Your task to perform on an android device: Open accessibility settings Image 0: 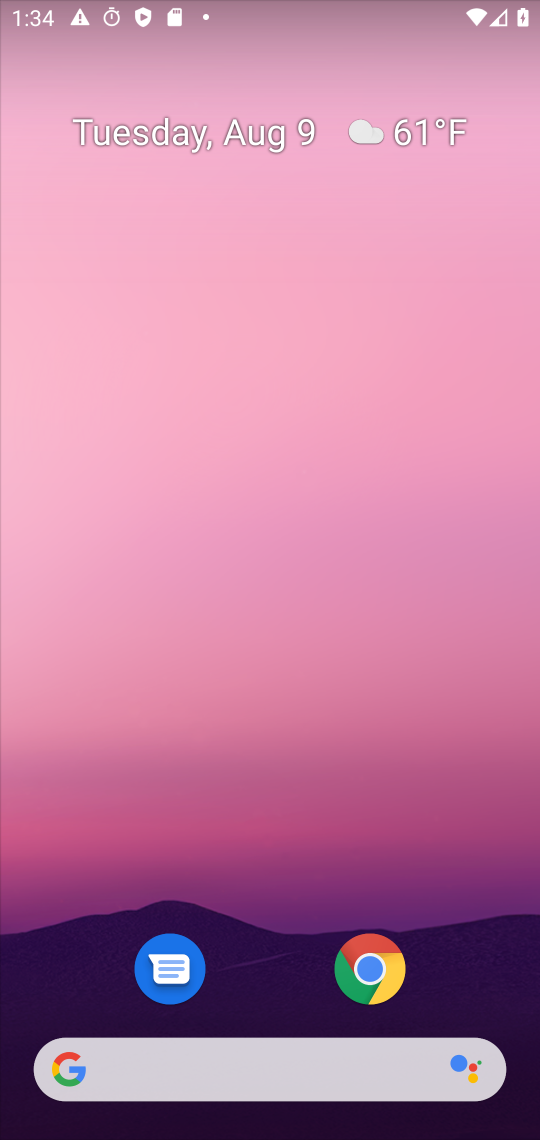
Step 0: press home button
Your task to perform on an android device: Open accessibility settings Image 1: 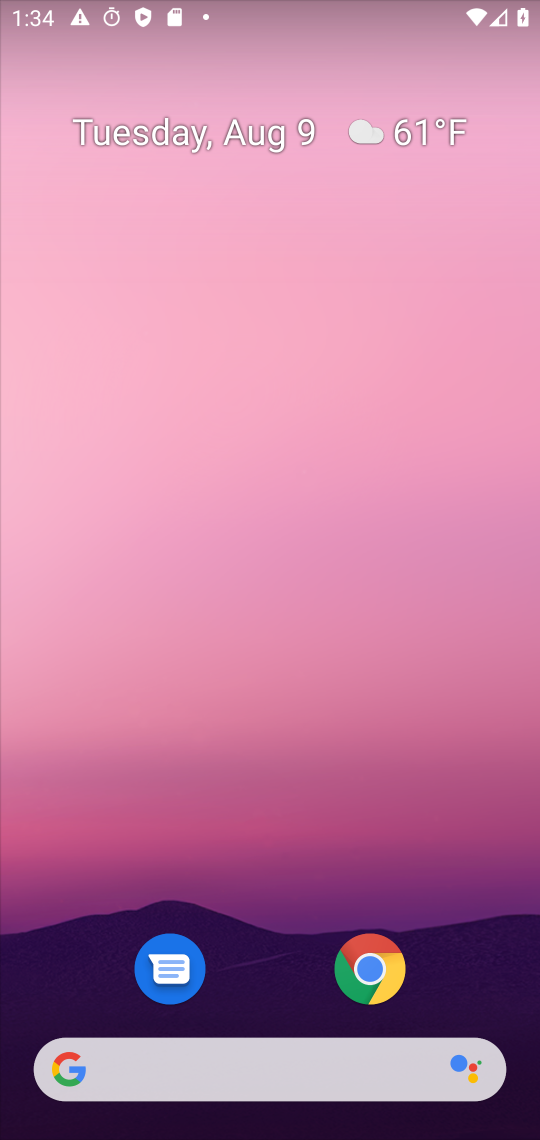
Step 1: drag from (391, 1096) to (287, 424)
Your task to perform on an android device: Open accessibility settings Image 2: 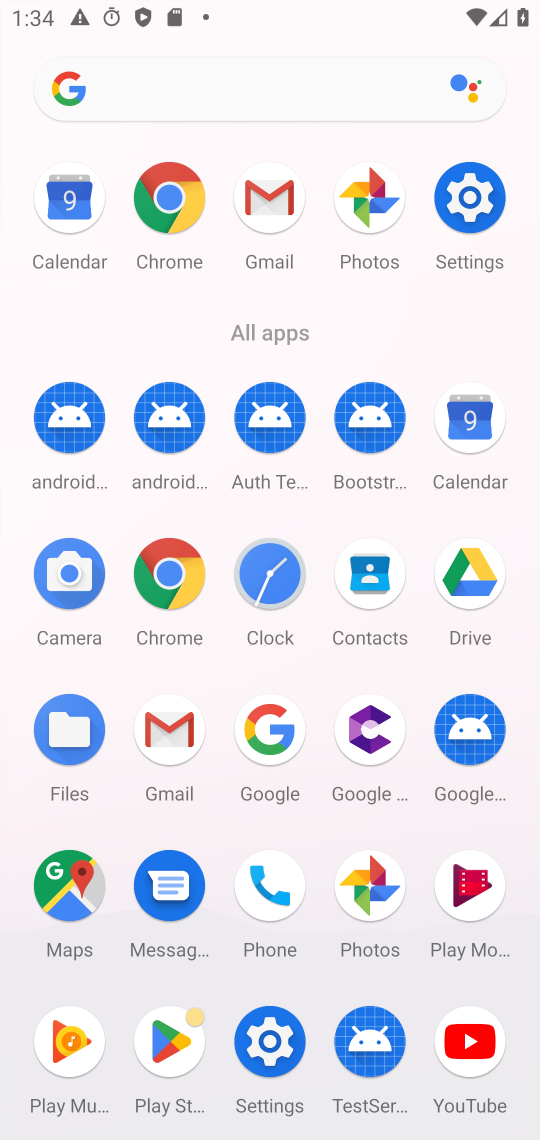
Step 2: click (458, 215)
Your task to perform on an android device: Open accessibility settings Image 3: 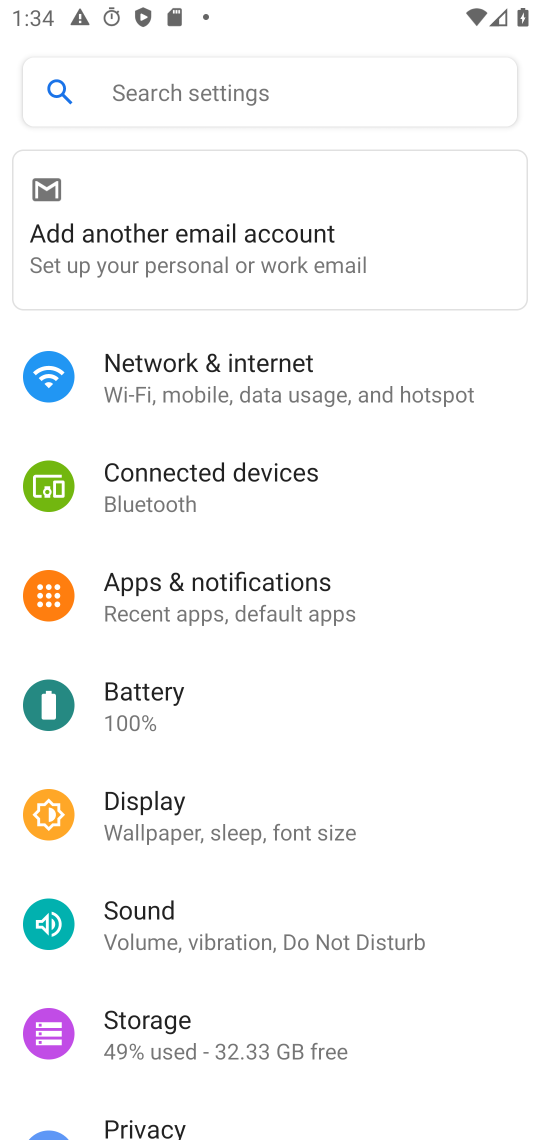
Step 3: click (172, 104)
Your task to perform on an android device: Open accessibility settings Image 4: 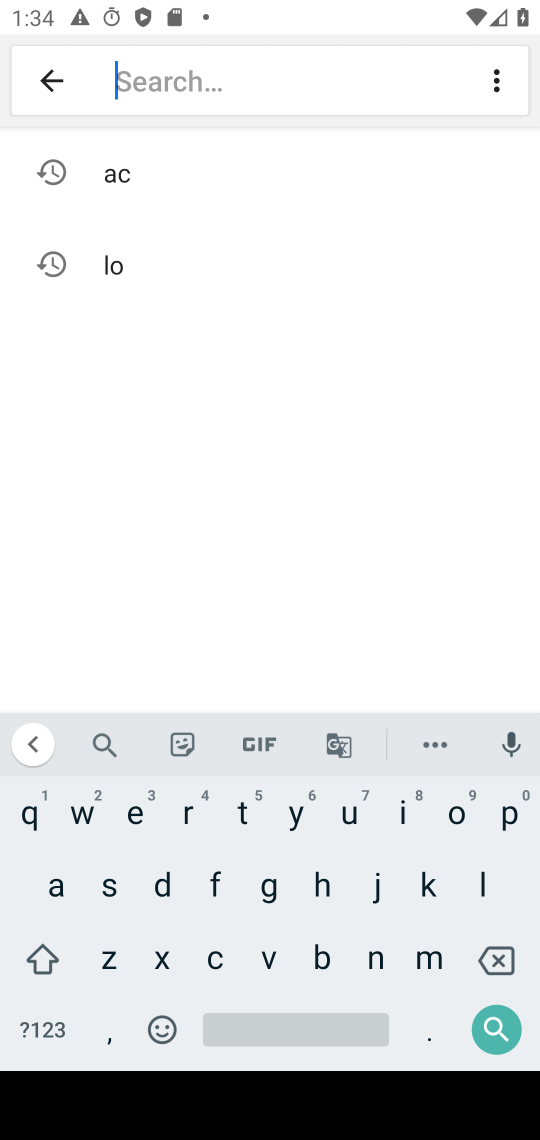
Step 4: click (149, 182)
Your task to perform on an android device: Open accessibility settings Image 5: 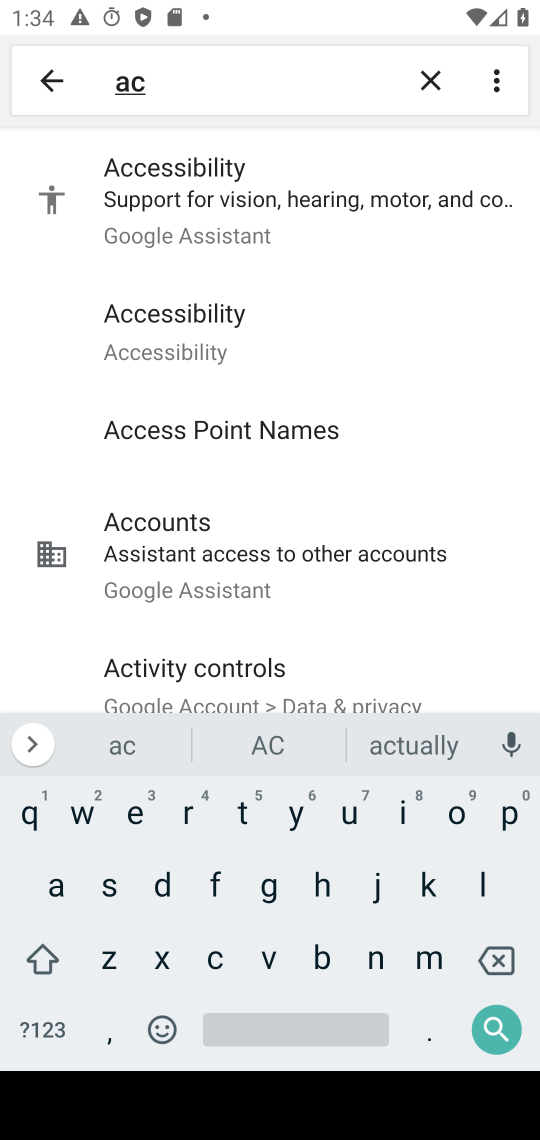
Step 5: click (175, 186)
Your task to perform on an android device: Open accessibility settings Image 6: 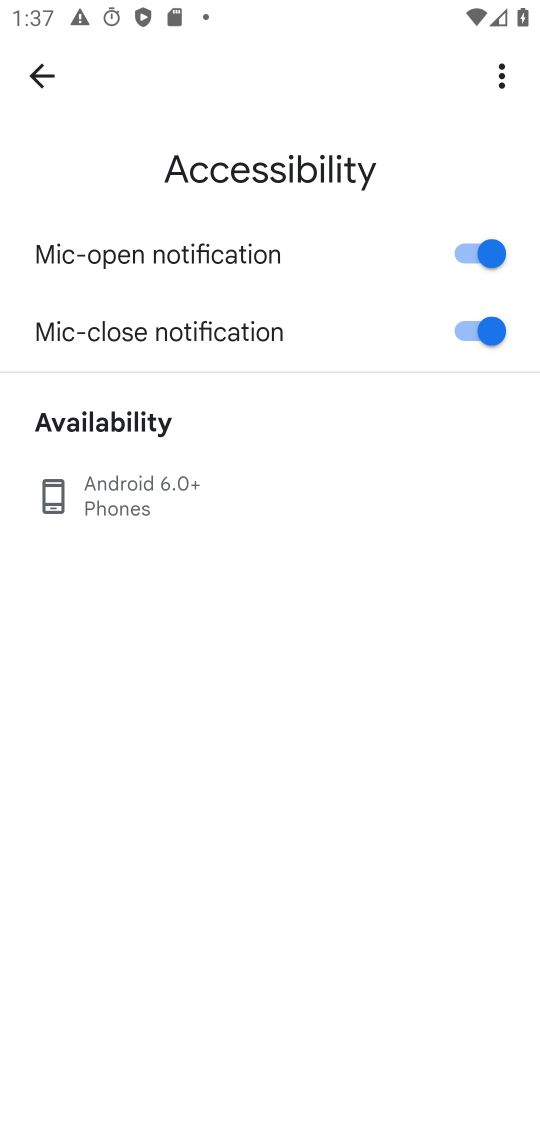
Step 6: task complete